Your task to perform on an android device: Turn on the flashlight Image 0: 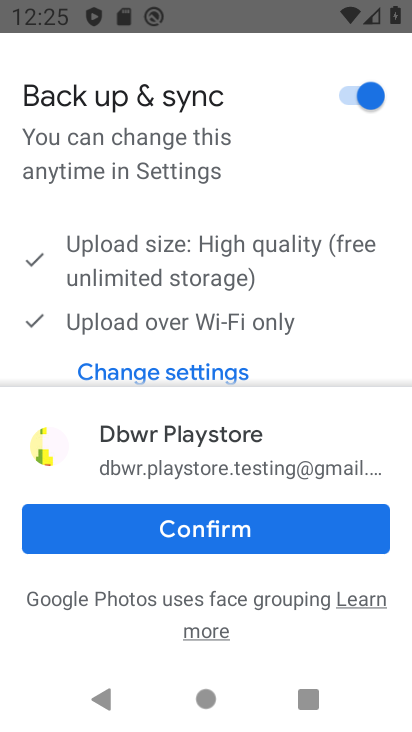
Step 0: press home button
Your task to perform on an android device: Turn on the flashlight Image 1: 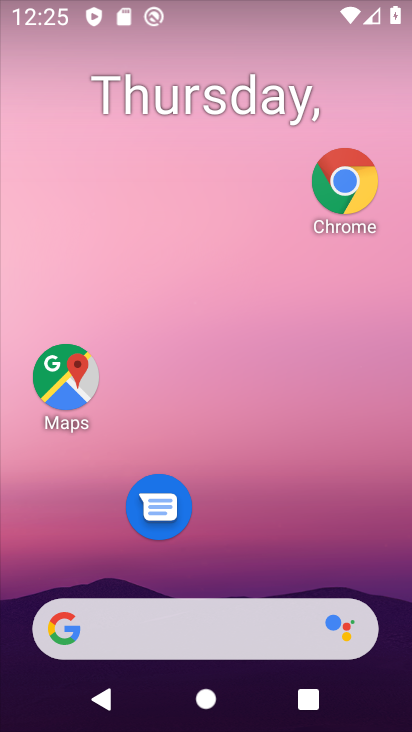
Step 1: task complete